Your task to perform on an android device: toggle improve location accuracy Image 0: 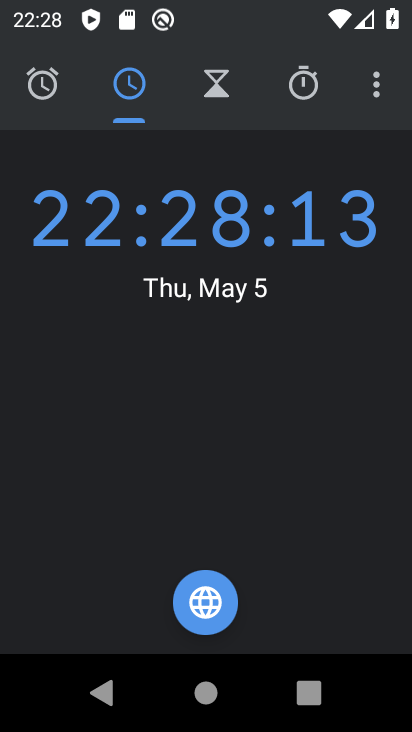
Step 0: press home button
Your task to perform on an android device: toggle improve location accuracy Image 1: 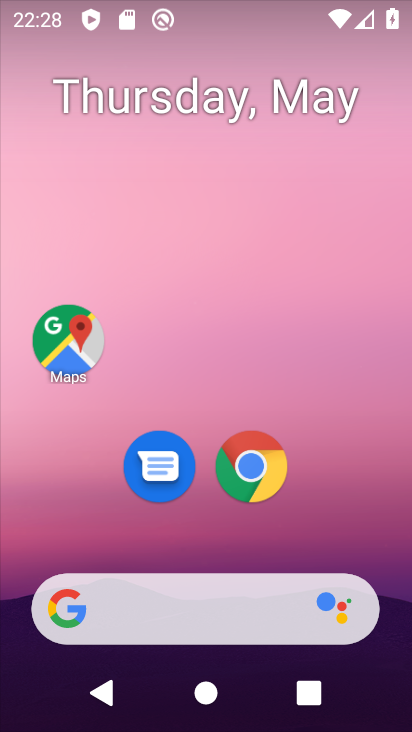
Step 1: drag from (362, 389) to (281, 10)
Your task to perform on an android device: toggle improve location accuracy Image 2: 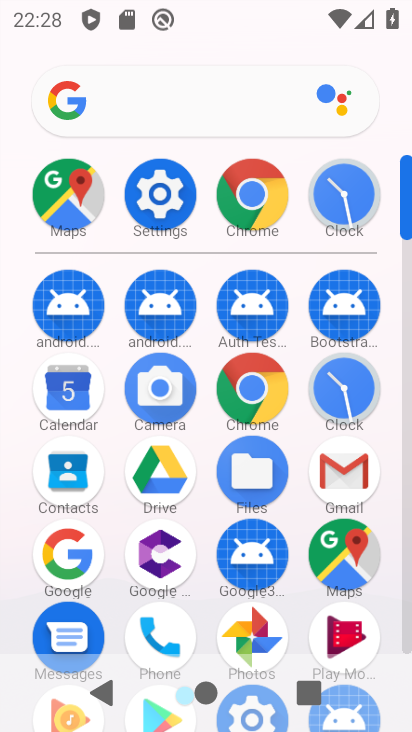
Step 2: click (163, 203)
Your task to perform on an android device: toggle improve location accuracy Image 3: 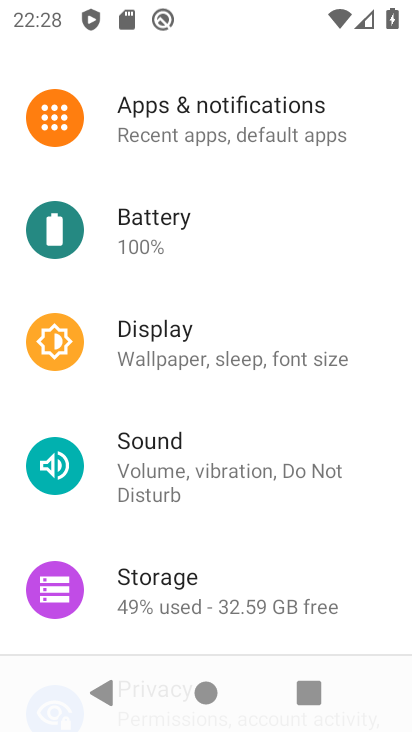
Step 3: drag from (228, 561) to (307, 50)
Your task to perform on an android device: toggle improve location accuracy Image 4: 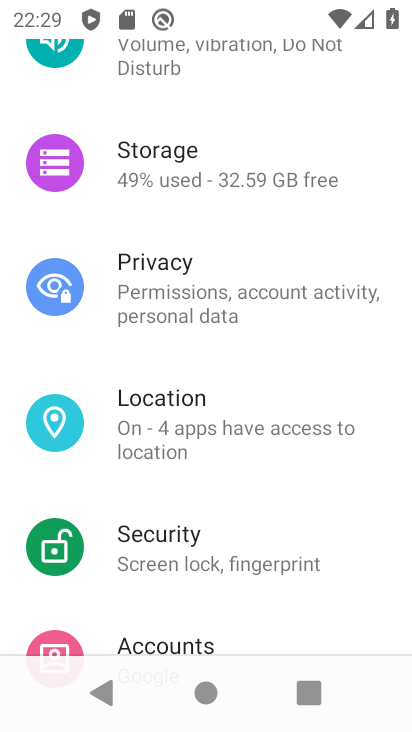
Step 4: drag from (155, 548) to (249, 185)
Your task to perform on an android device: toggle improve location accuracy Image 5: 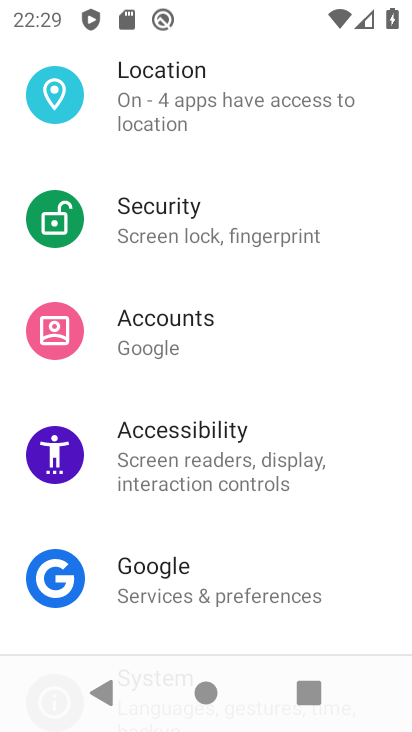
Step 5: click (208, 109)
Your task to perform on an android device: toggle improve location accuracy Image 6: 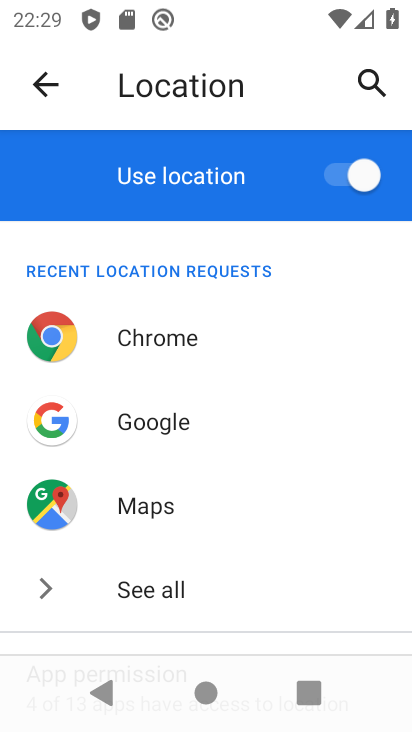
Step 6: drag from (326, 489) to (378, 96)
Your task to perform on an android device: toggle improve location accuracy Image 7: 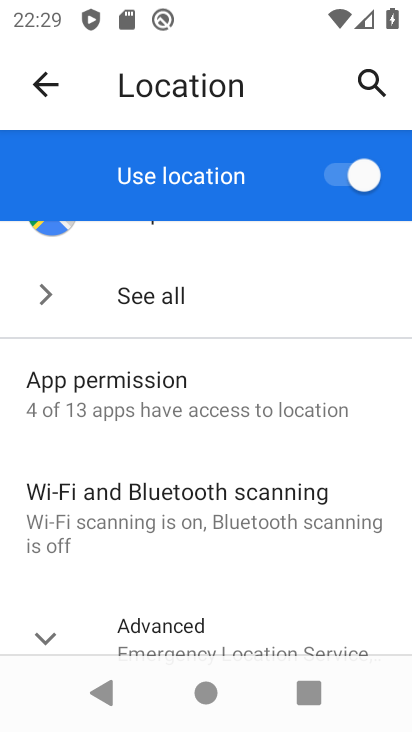
Step 7: drag from (261, 514) to (313, 159)
Your task to perform on an android device: toggle improve location accuracy Image 8: 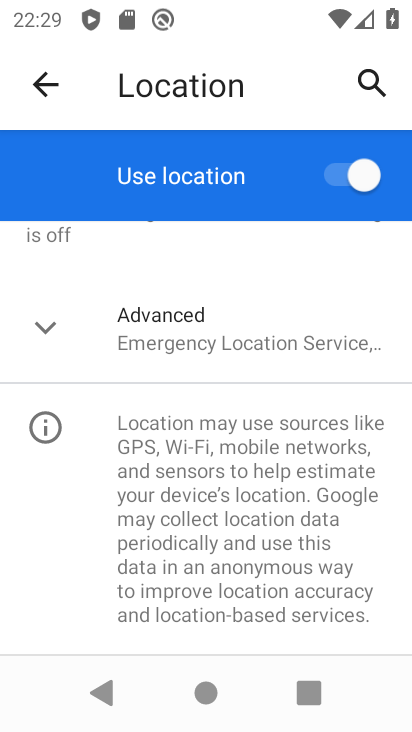
Step 8: click (169, 355)
Your task to perform on an android device: toggle improve location accuracy Image 9: 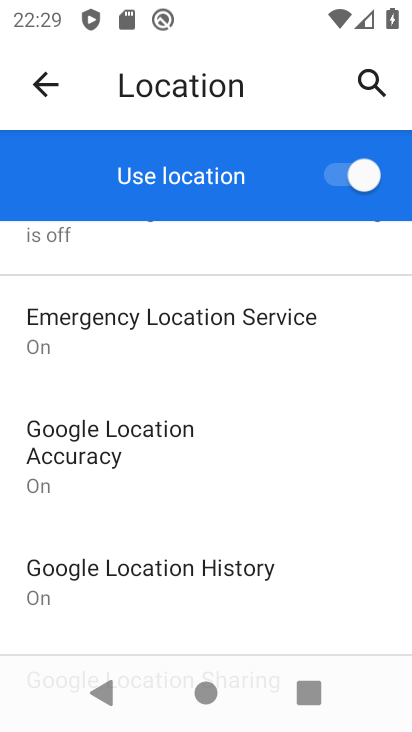
Step 9: click (136, 440)
Your task to perform on an android device: toggle improve location accuracy Image 10: 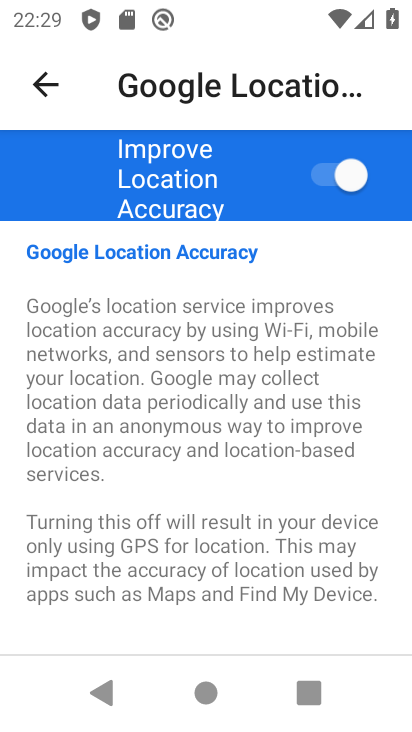
Step 10: click (315, 170)
Your task to perform on an android device: toggle improve location accuracy Image 11: 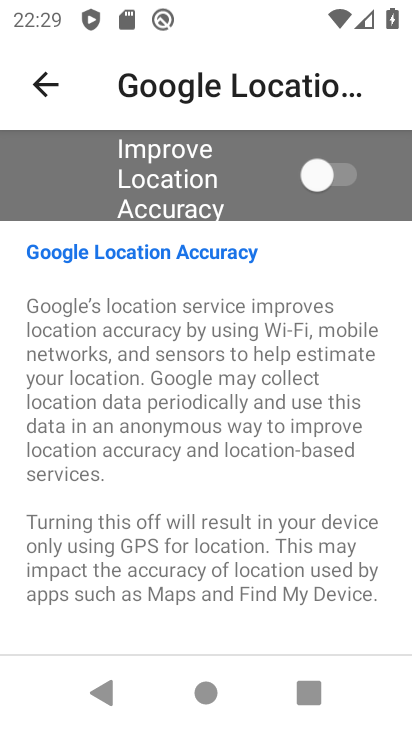
Step 11: task complete